Your task to perform on an android device: toggle airplane mode Image 0: 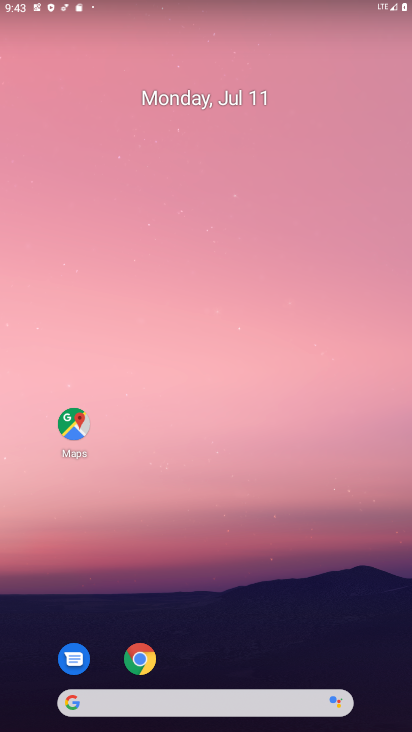
Step 0: drag from (246, 637) to (251, 69)
Your task to perform on an android device: toggle airplane mode Image 1: 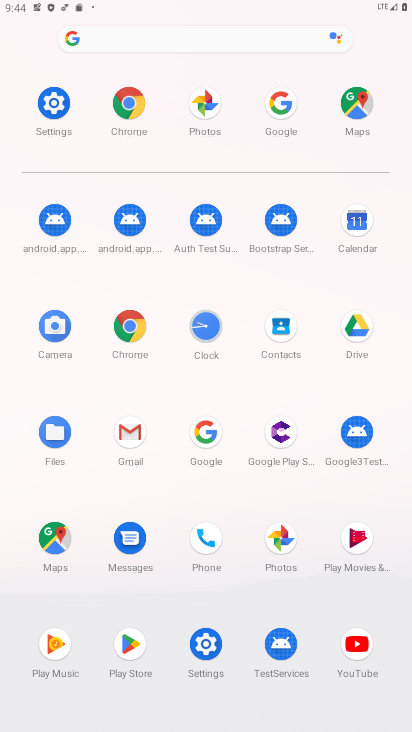
Step 1: click (64, 99)
Your task to perform on an android device: toggle airplane mode Image 2: 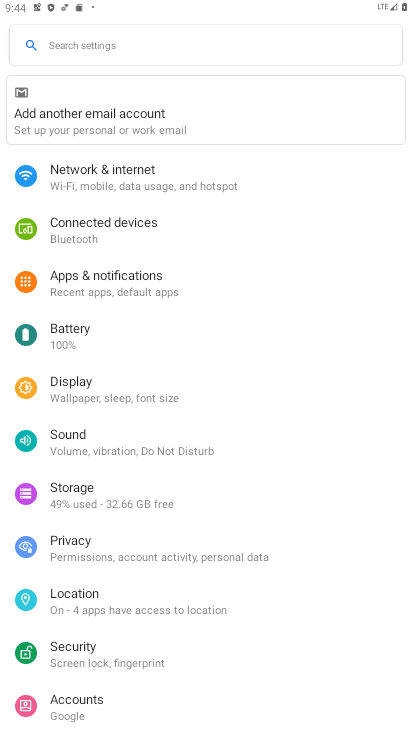
Step 2: click (84, 173)
Your task to perform on an android device: toggle airplane mode Image 3: 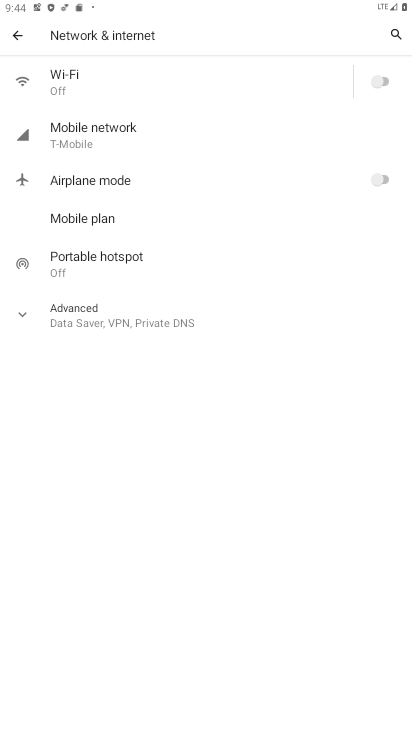
Step 3: click (383, 179)
Your task to perform on an android device: toggle airplane mode Image 4: 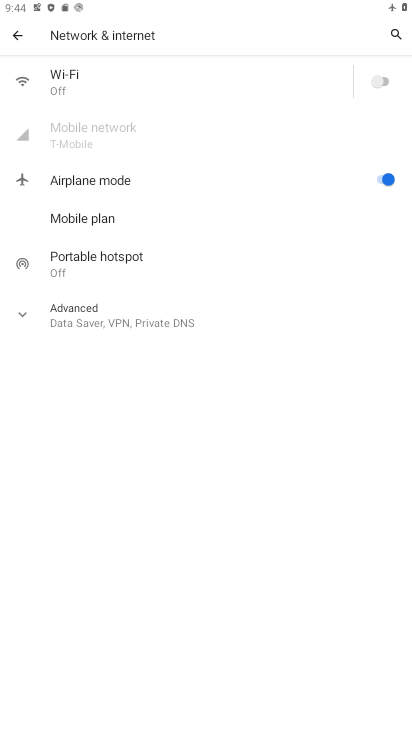
Step 4: task complete